Your task to perform on an android device: turn on notifications settings in the gmail app Image 0: 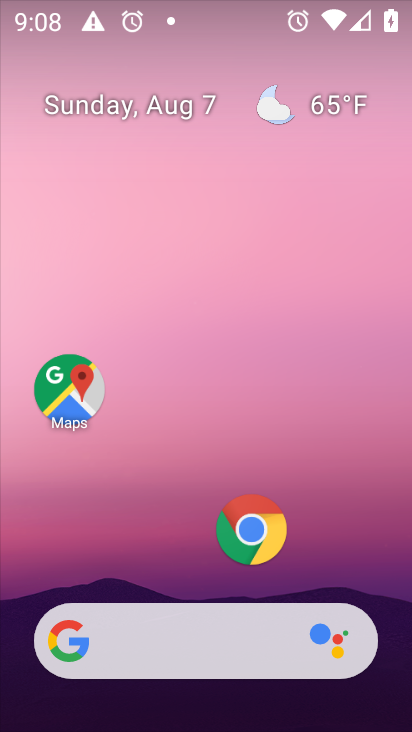
Step 0: drag from (168, 511) to (204, 20)
Your task to perform on an android device: turn on notifications settings in the gmail app Image 1: 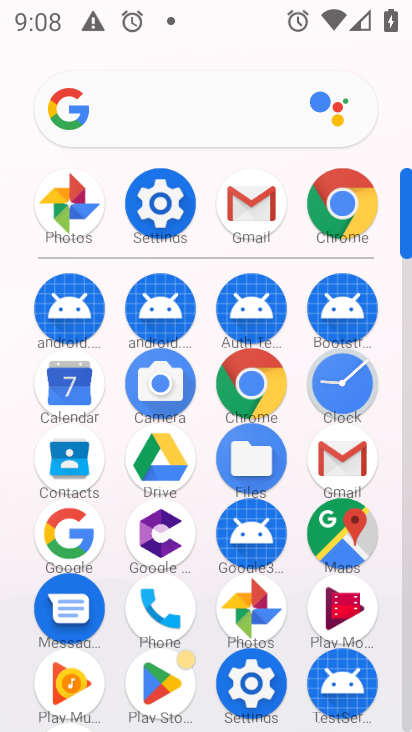
Step 1: click (329, 461)
Your task to perform on an android device: turn on notifications settings in the gmail app Image 2: 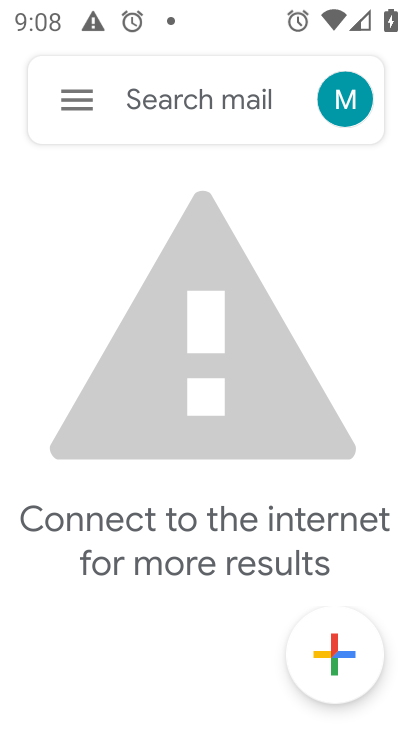
Step 2: click (66, 102)
Your task to perform on an android device: turn on notifications settings in the gmail app Image 3: 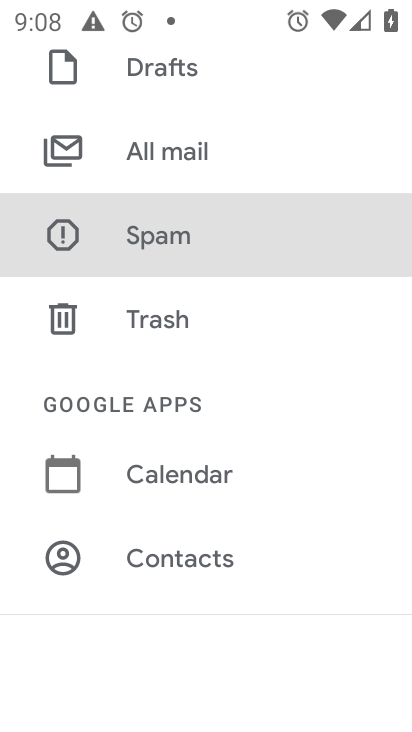
Step 3: drag from (122, 576) to (179, 160)
Your task to perform on an android device: turn on notifications settings in the gmail app Image 4: 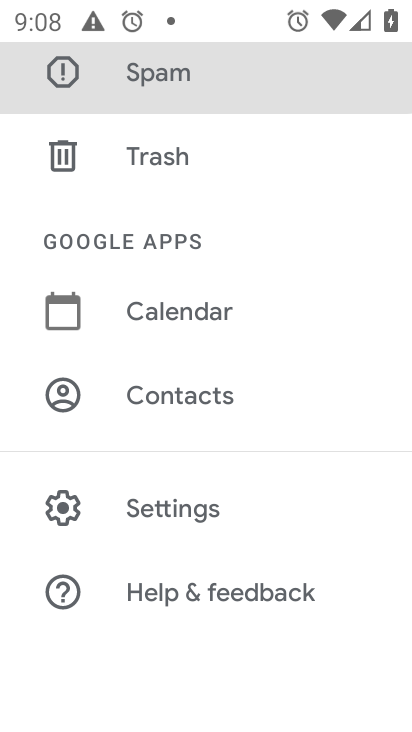
Step 4: click (171, 503)
Your task to perform on an android device: turn on notifications settings in the gmail app Image 5: 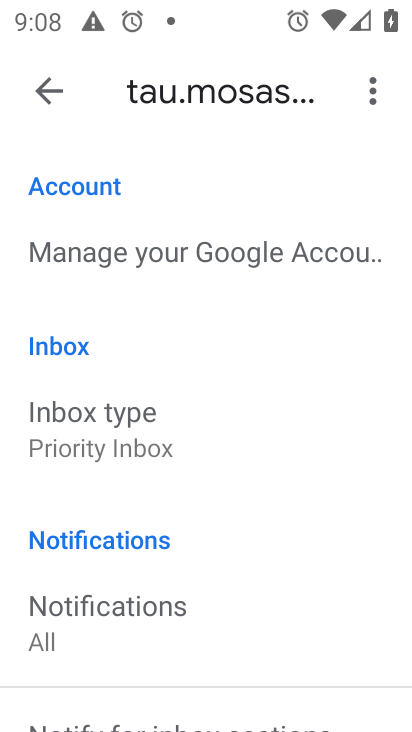
Step 5: click (56, 87)
Your task to perform on an android device: turn on notifications settings in the gmail app Image 6: 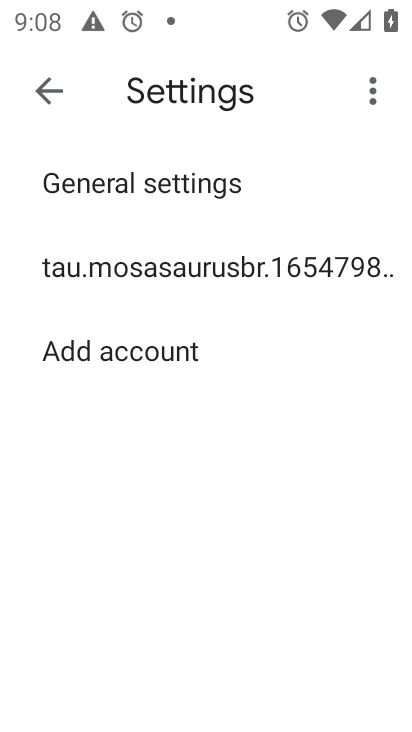
Step 6: click (132, 182)
Your task to perform on an android device: turn on notifications settings in the gmail app Image 7: 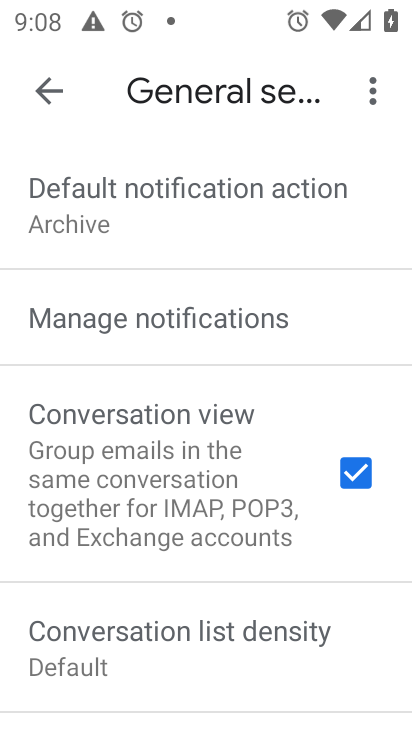
Step 7: click (167, 326)
Your task to perform on an android device: turn on notifications settings in the gmail app Image 8: 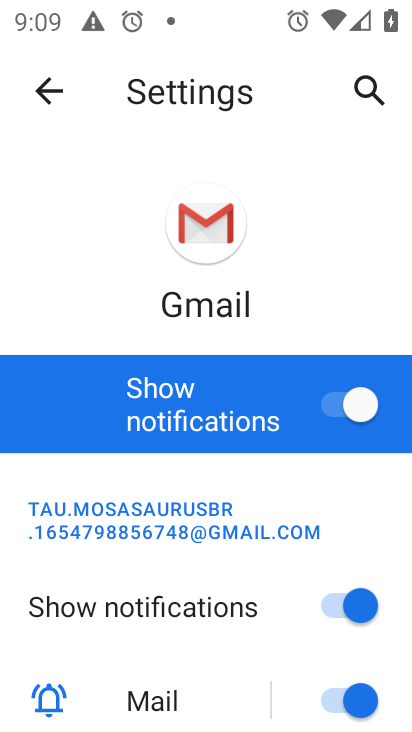
Step 8: task complete